Your task to perform on an android device: Add razer thresher to the cart on ebay, then select checkout. Image 0: 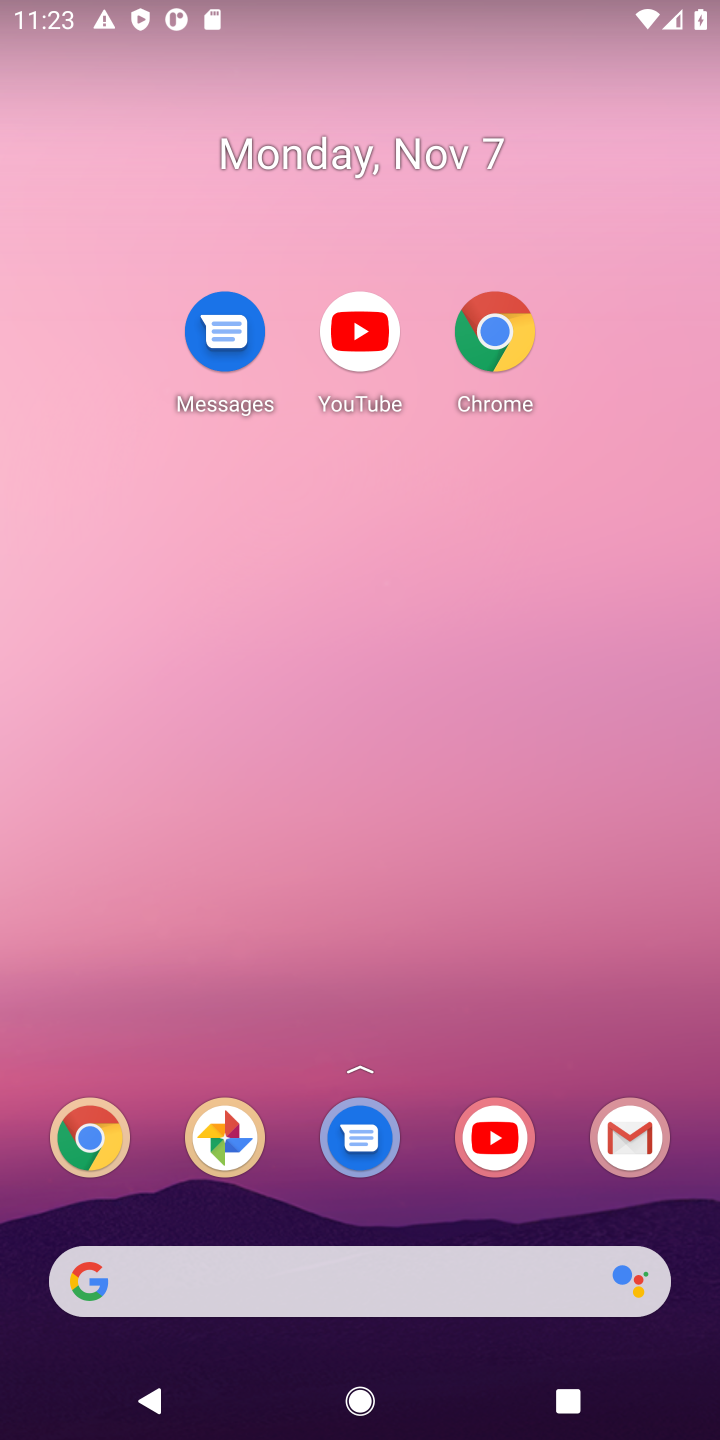
Step 0: drag from (430, 1055) to (335, 148)
Your task to perform on an android device: Add razer thresher to the cart on ebay, then select checkout. Image 1: 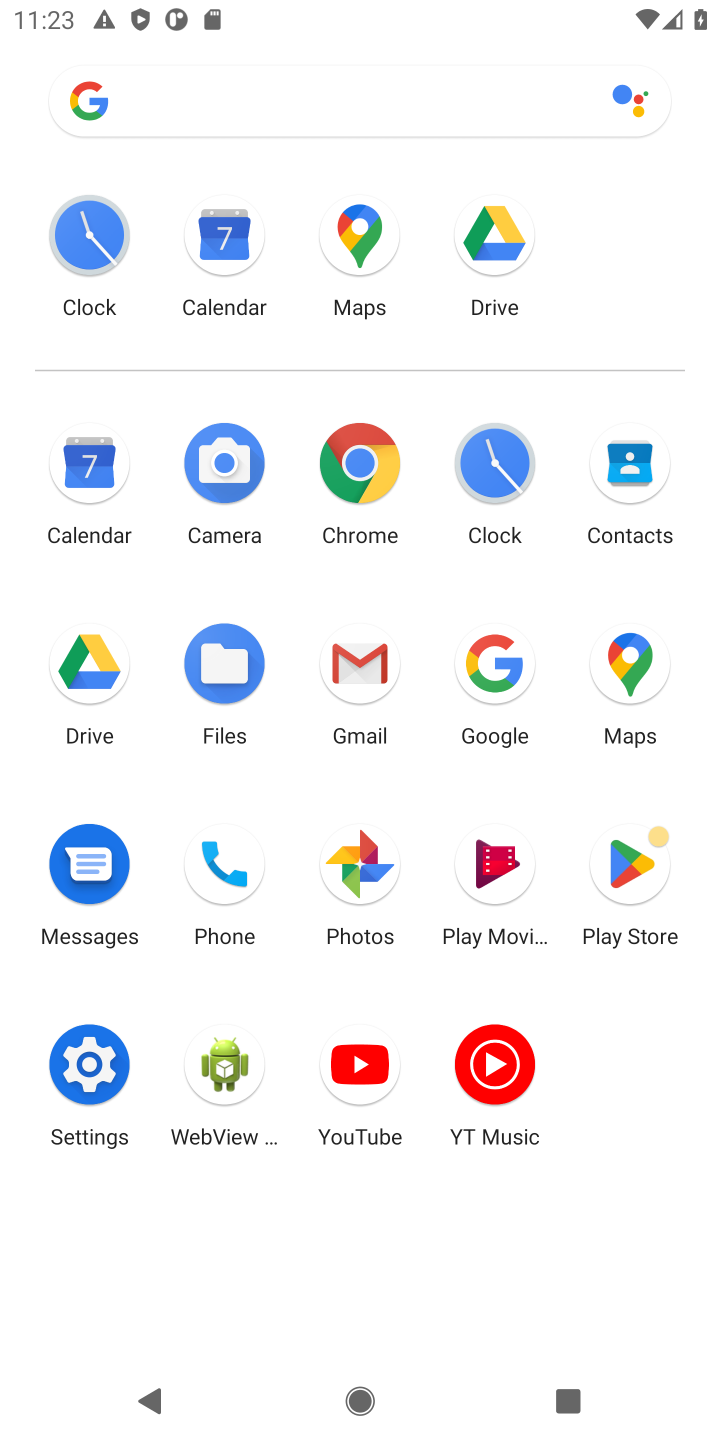
Step 1: click (362, 459)
Your task to perform on an android device: Add razer thresher to the cart on ebay, then select checkout. Image 2: 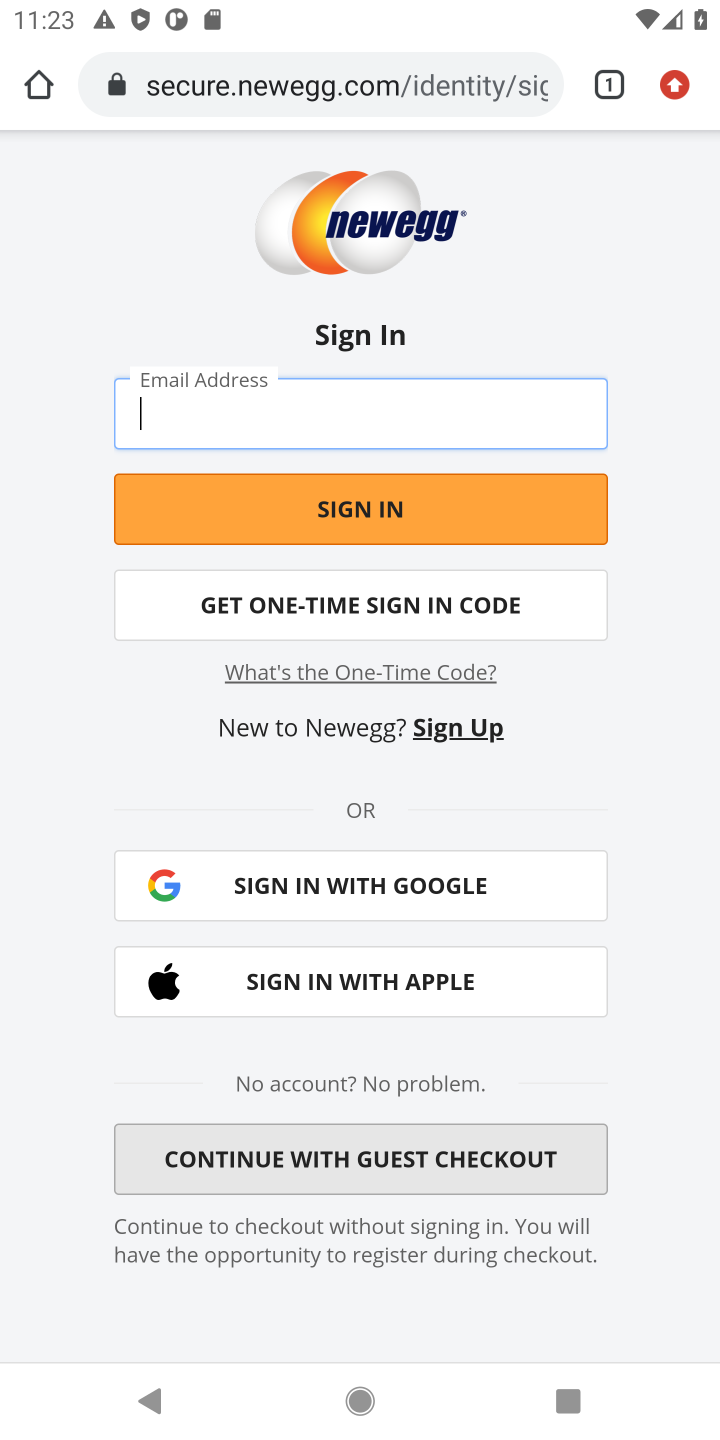
Step 2: click (415, 86)
Your task to perform on an android device: Add razer thresher to the cart on ebay, then select checkout. Image 3: 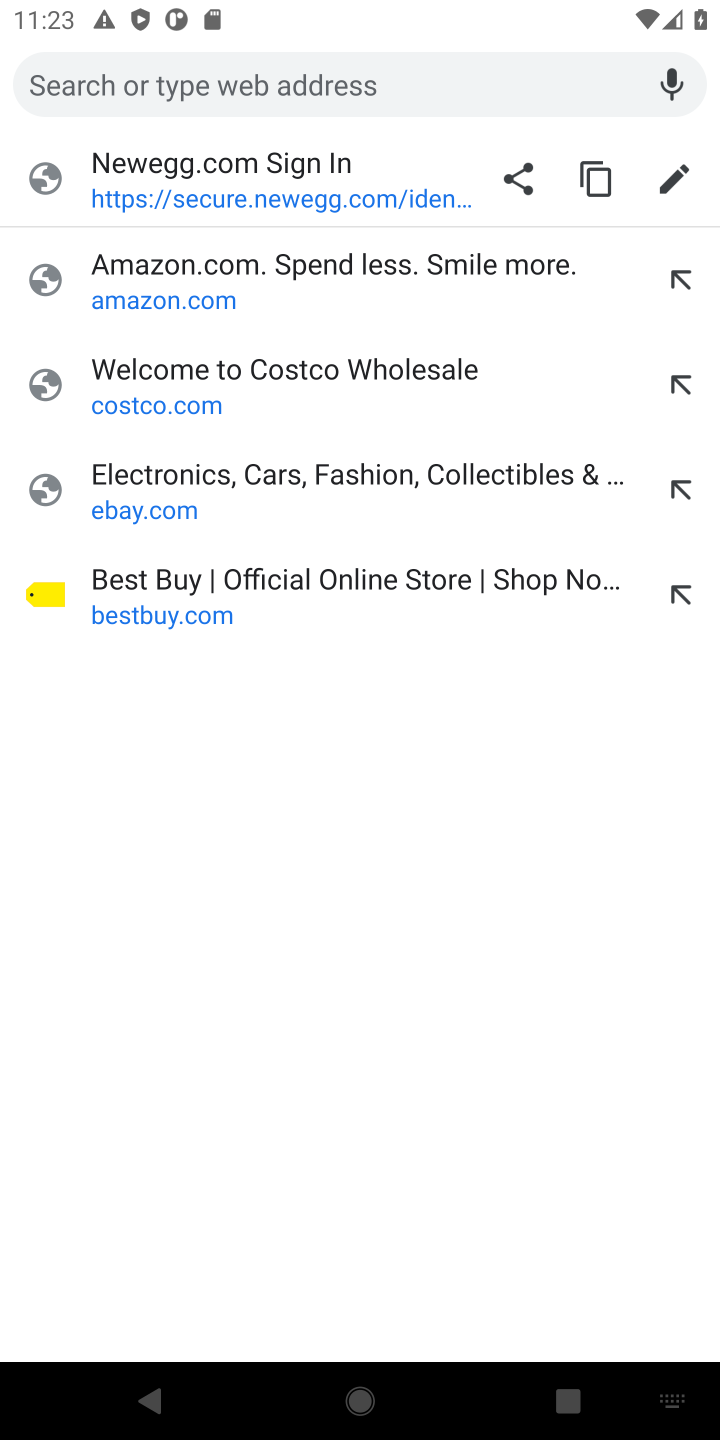
Step 3: type "ebay.com"
Your task to perform on an android device: Add razer thresher to the cart on ebay, then select checkout. Image 4: 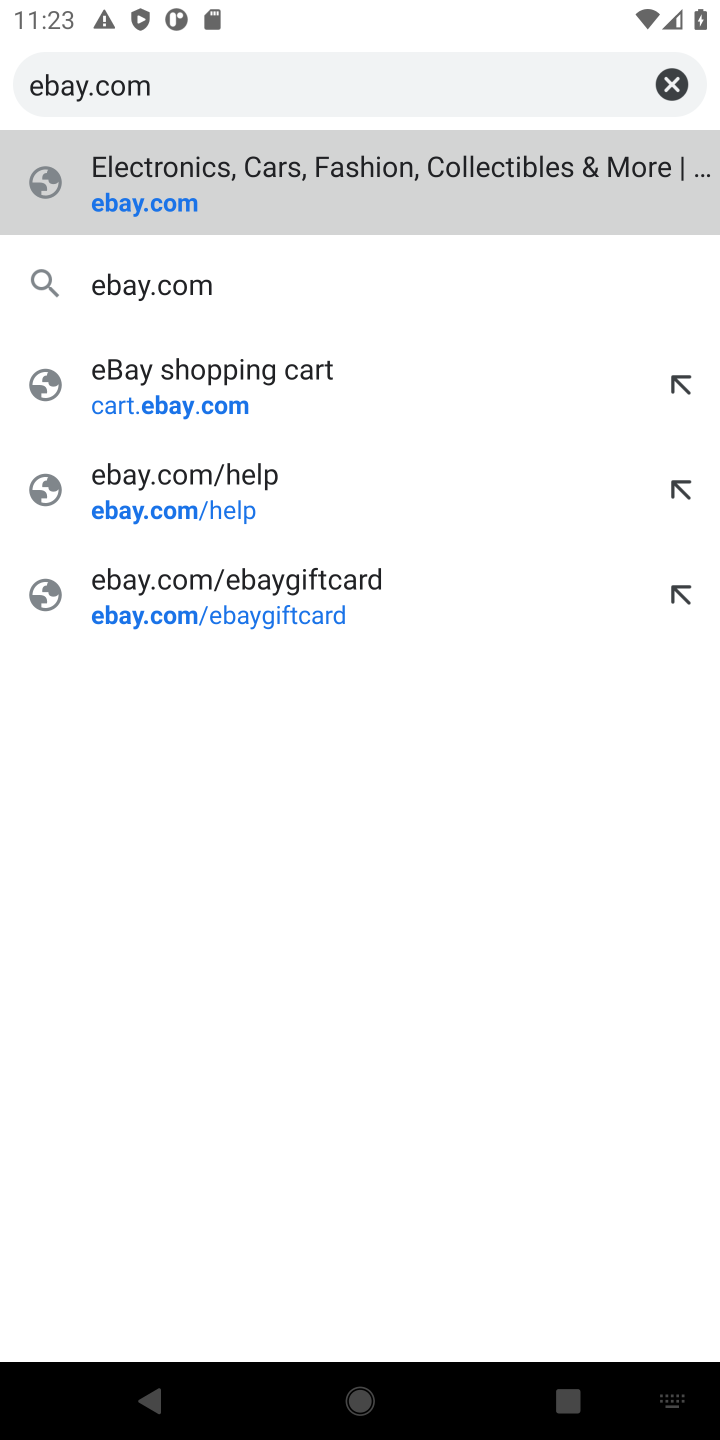
Step 4: press enter
Your task to perform on an android device: Add razer thresher to the cart on ebay, then select checkout. Image 5: 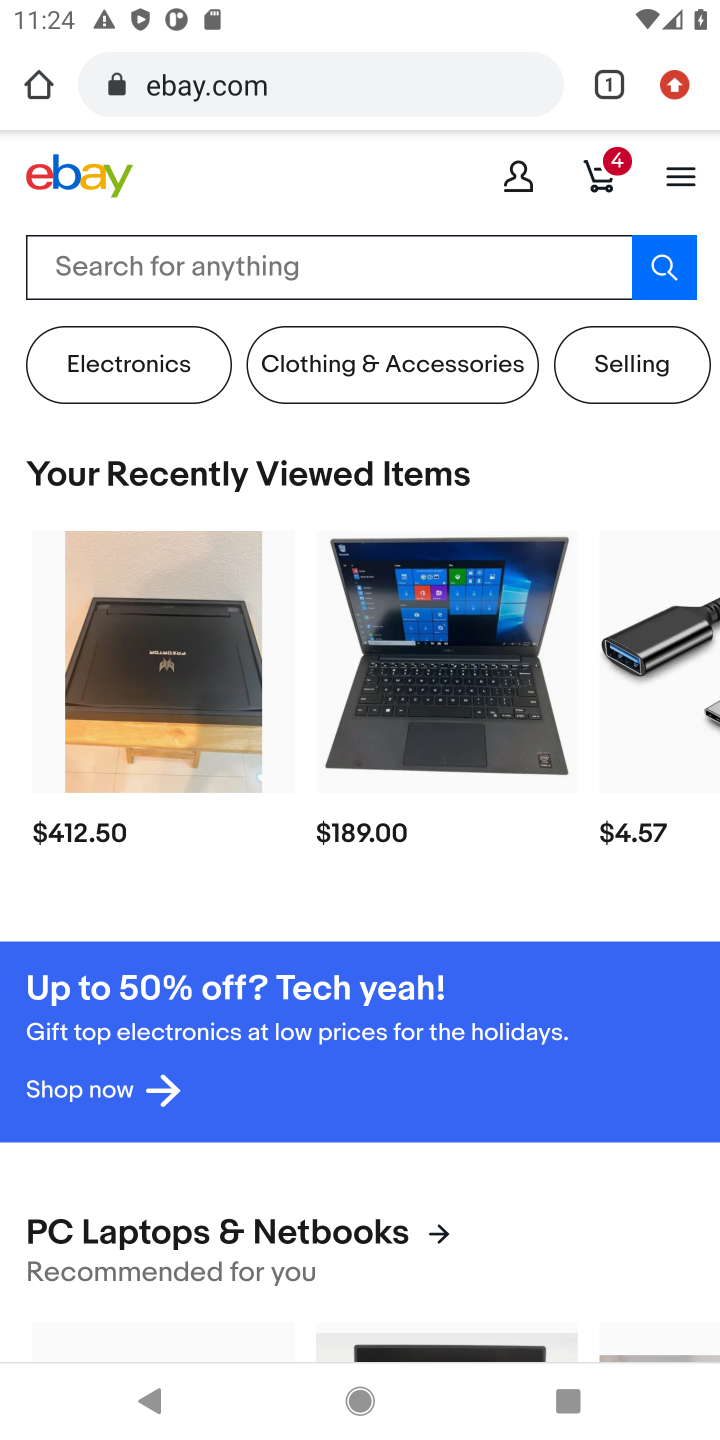
Step 5: click (508, 263)
Your task to perform on an android device: Add razer thresher to the cart on ebay, then select checkout. Image 6: 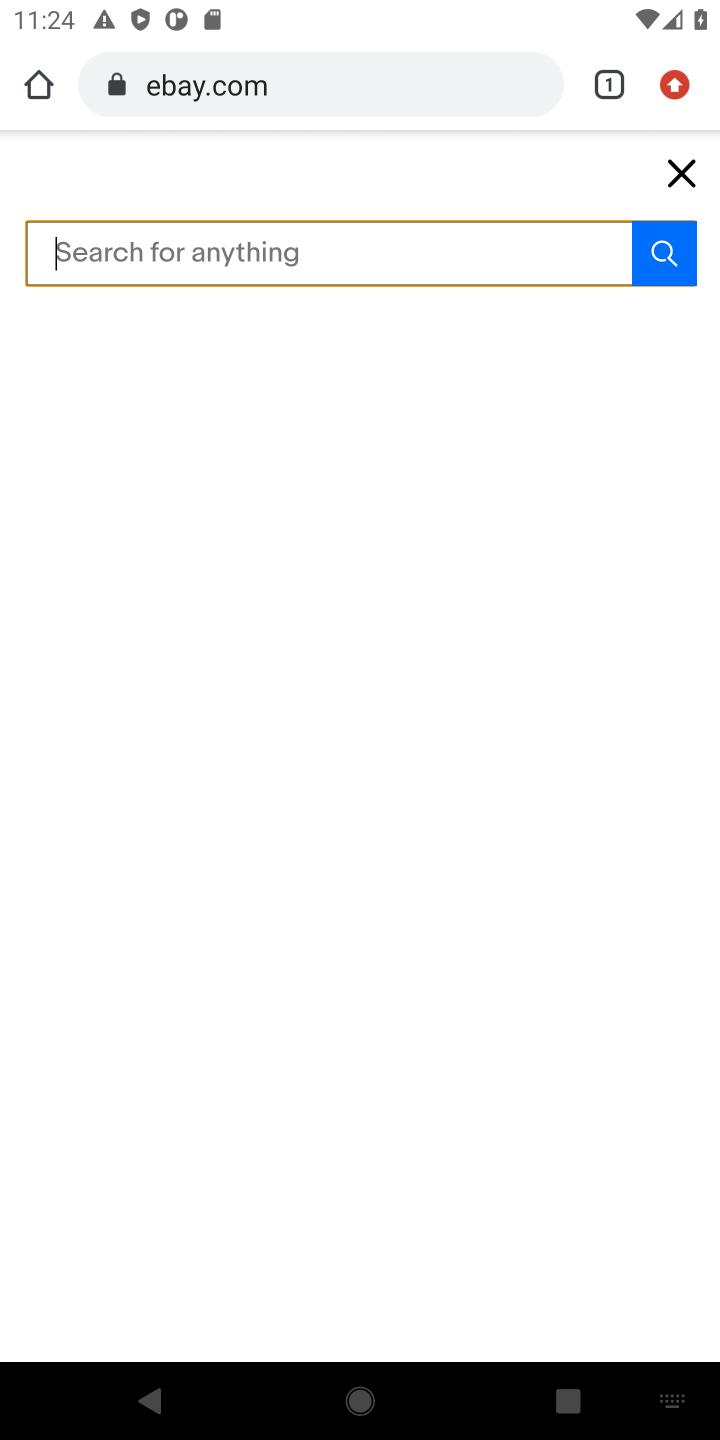
Step 6: type "razer thresher"
Your task to perform on an android device: Add razer thresher to the cart on ebay, then select checkout. Image 7: 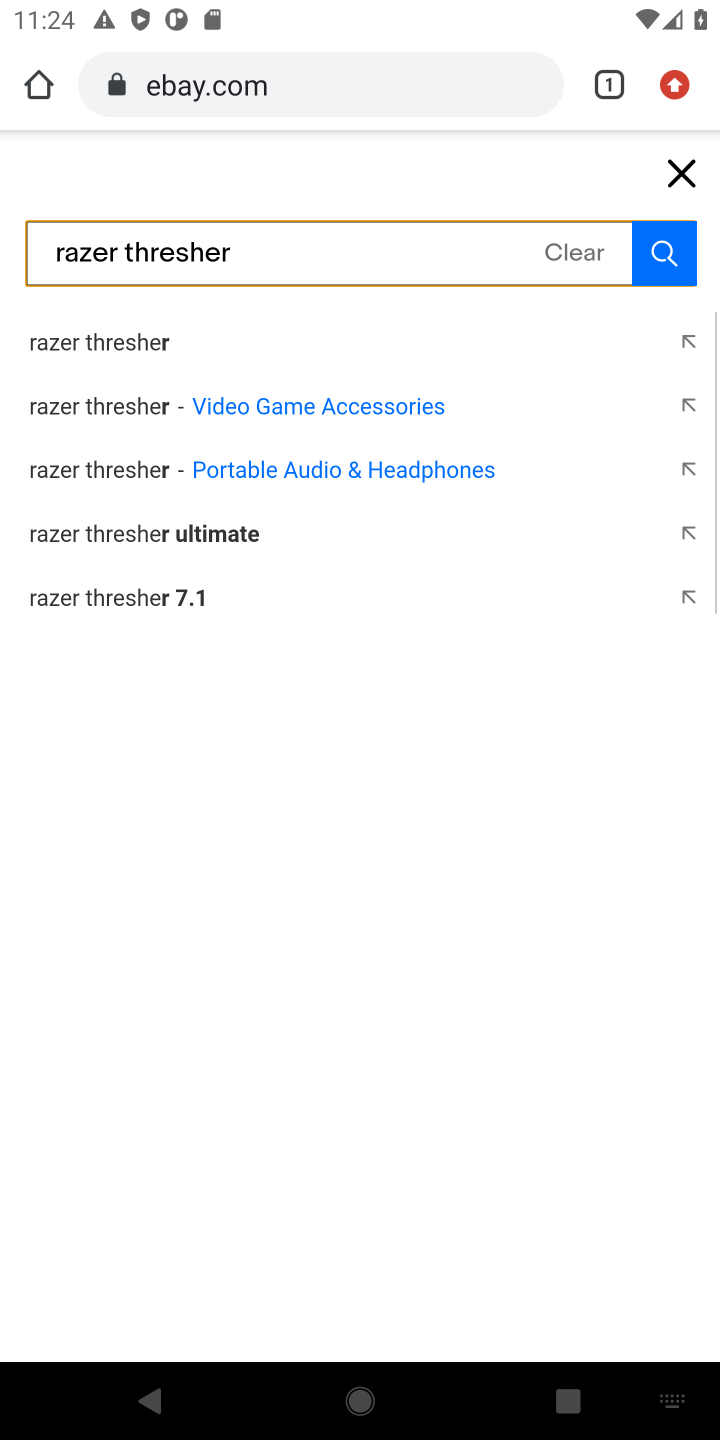
Step 7: press enter
Your task to perform on an android device: Add razer thresher to the cart on ebay, then select checkout. Image 8: 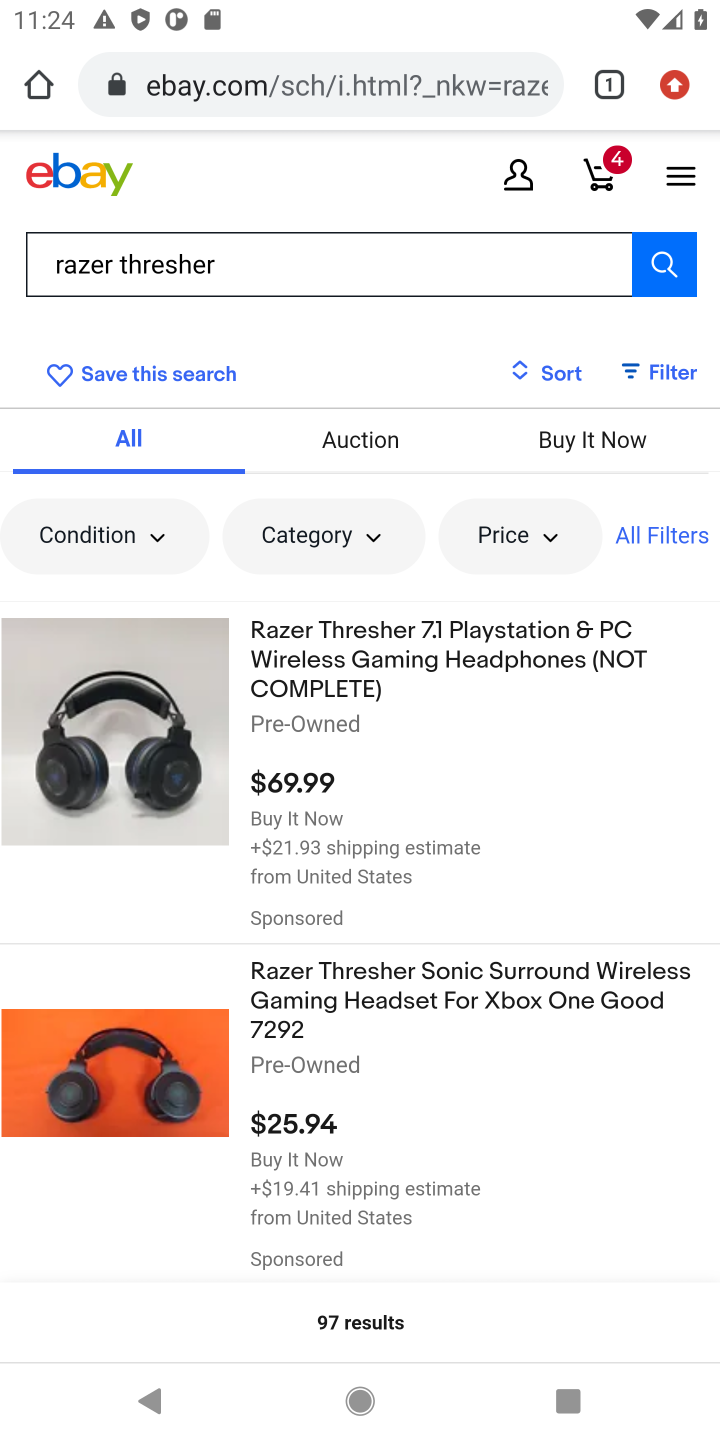
Step 8: click (498, 654)
Your task to perform on an android device: Add razer thresher to the cart on ebay, then select checkout. Image 9: 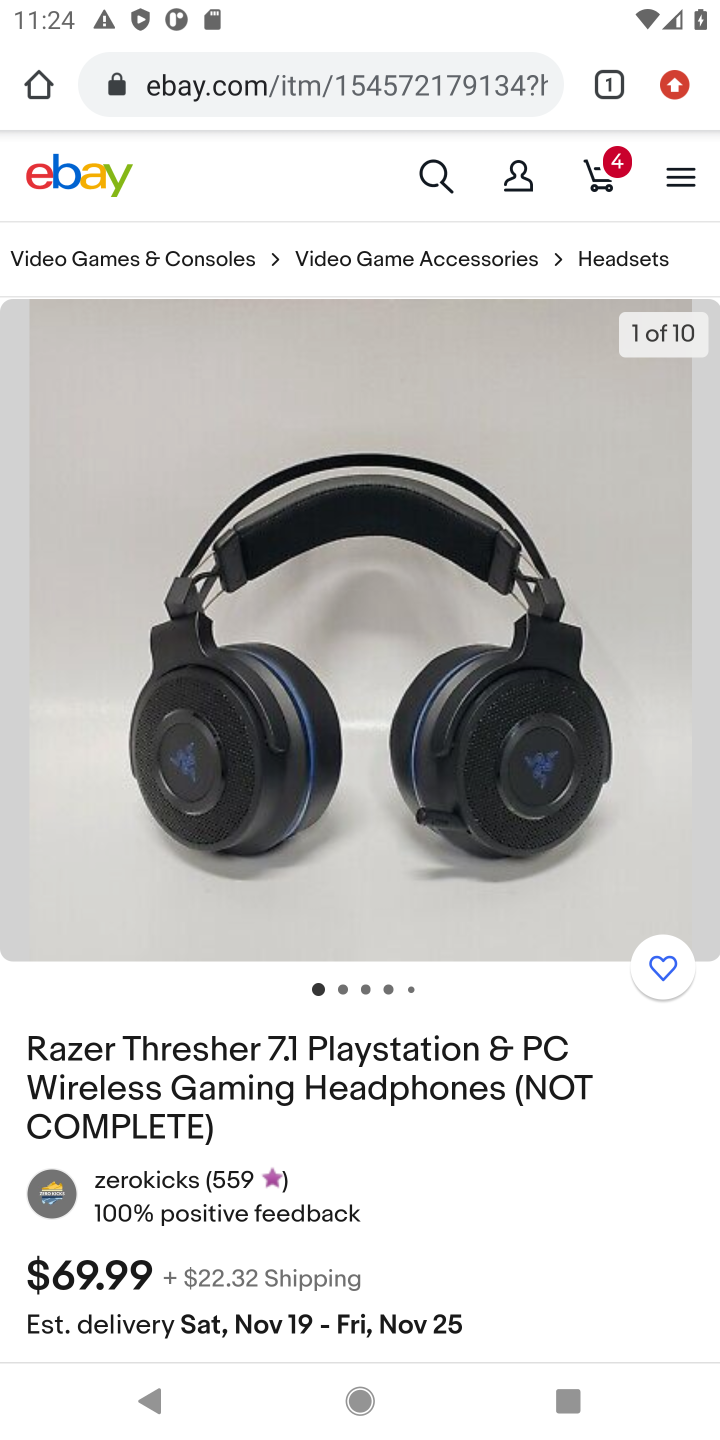
Step 9: drag from (533, 1093) to (601, 362)
Your task to perform on an android device: Add razer thresher to the cart on ebay, then select checkout. Image 10: 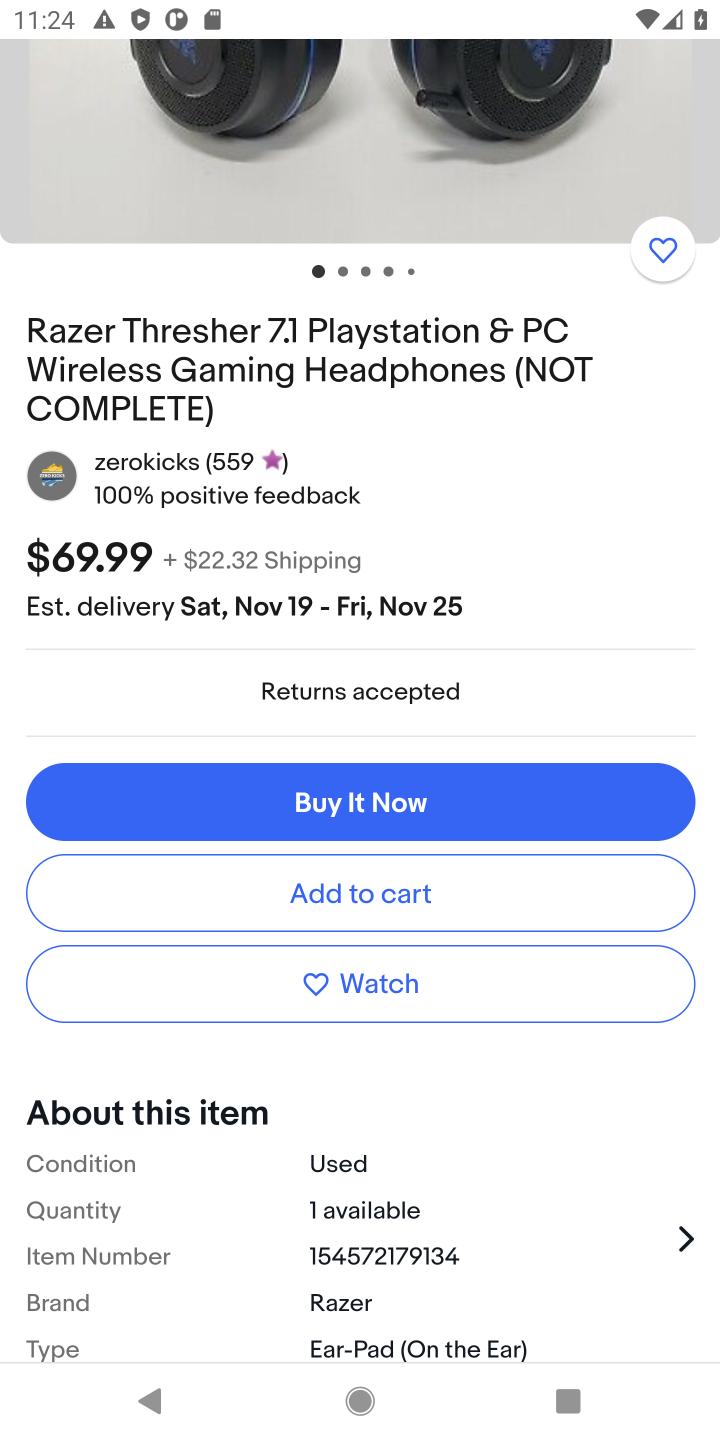
Step 10: click (457, 891)
Your task to perform on an android device: Add razer thresher to the cart on ebay, then select checkout. Image 11: 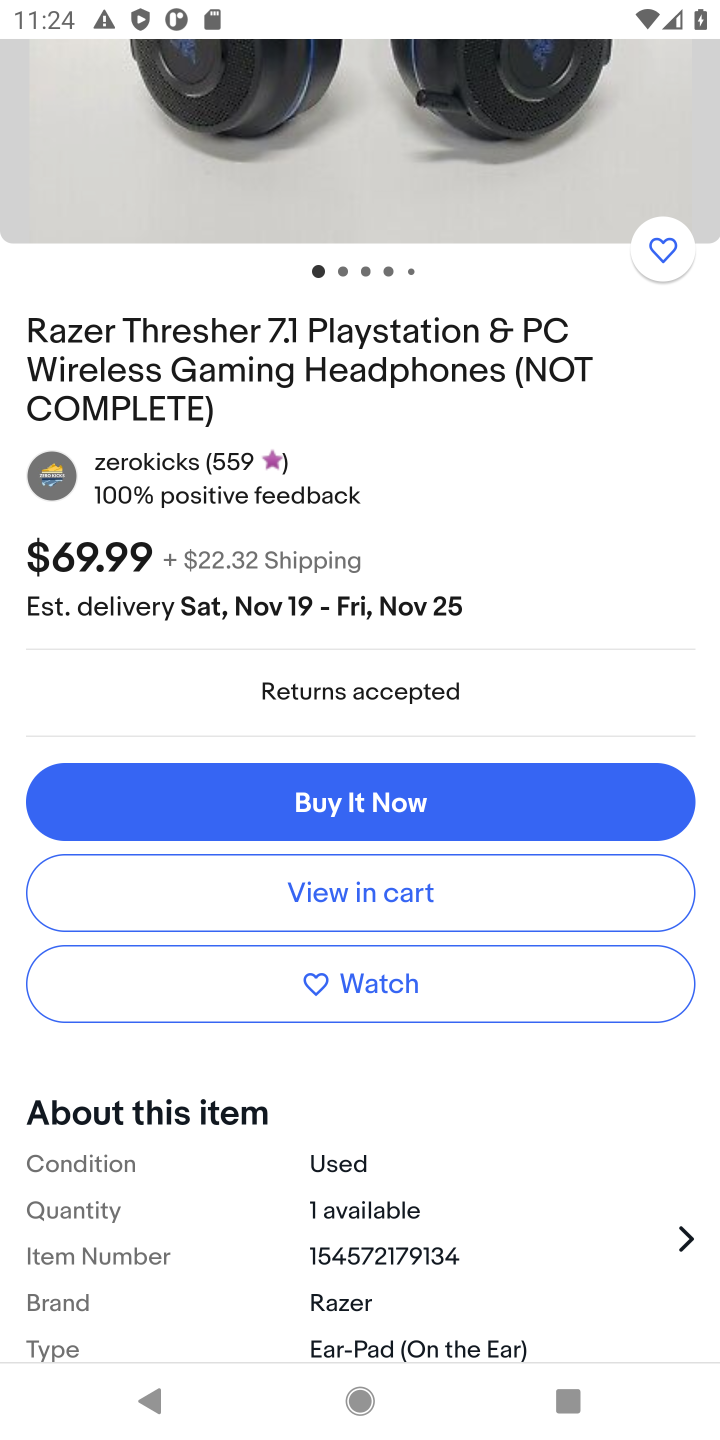
Step 11: click (408, 882)
Your task to perform on an android device: Add razer thresher to the cart on ebay, then select checkout. Image 12: 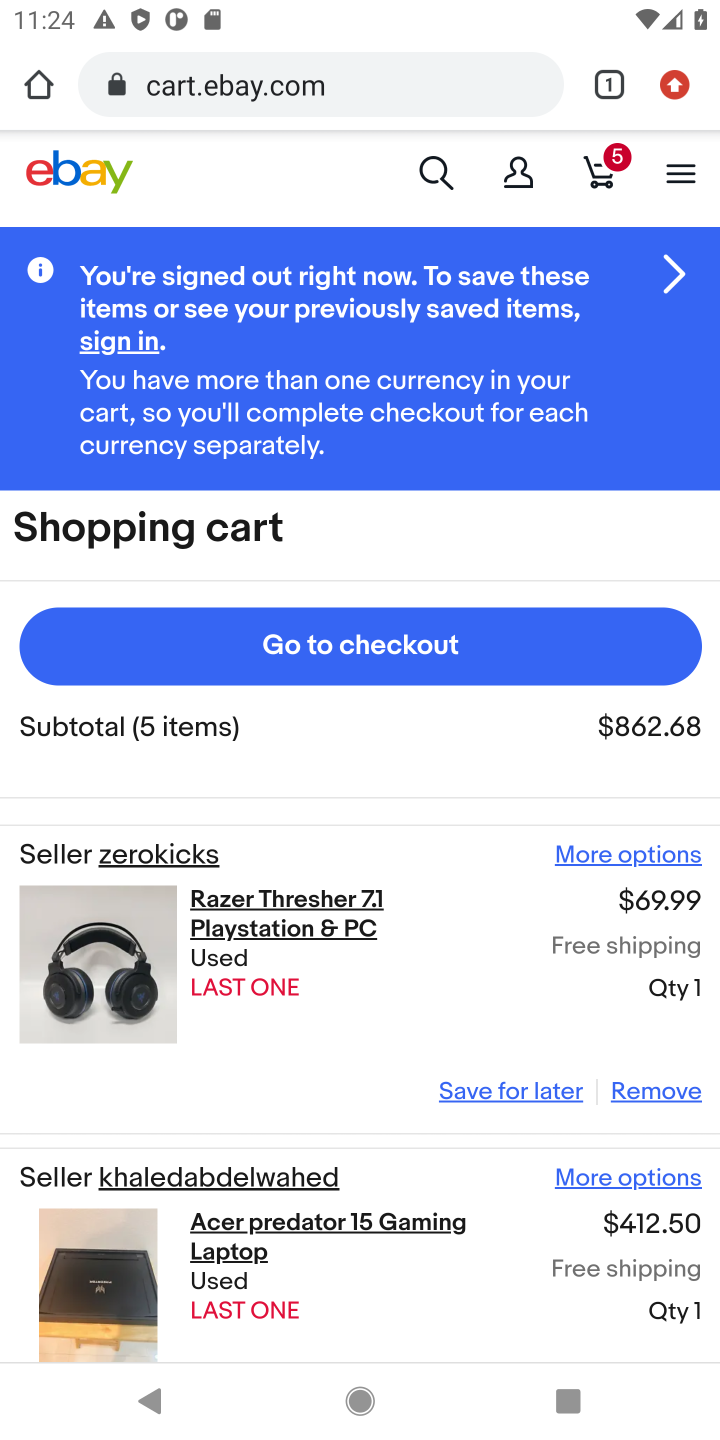
Step 12: click (472, 669)
Your task to perform on an android device: Add razer thresher to the cart on ebay, then select checkout. Image 13: 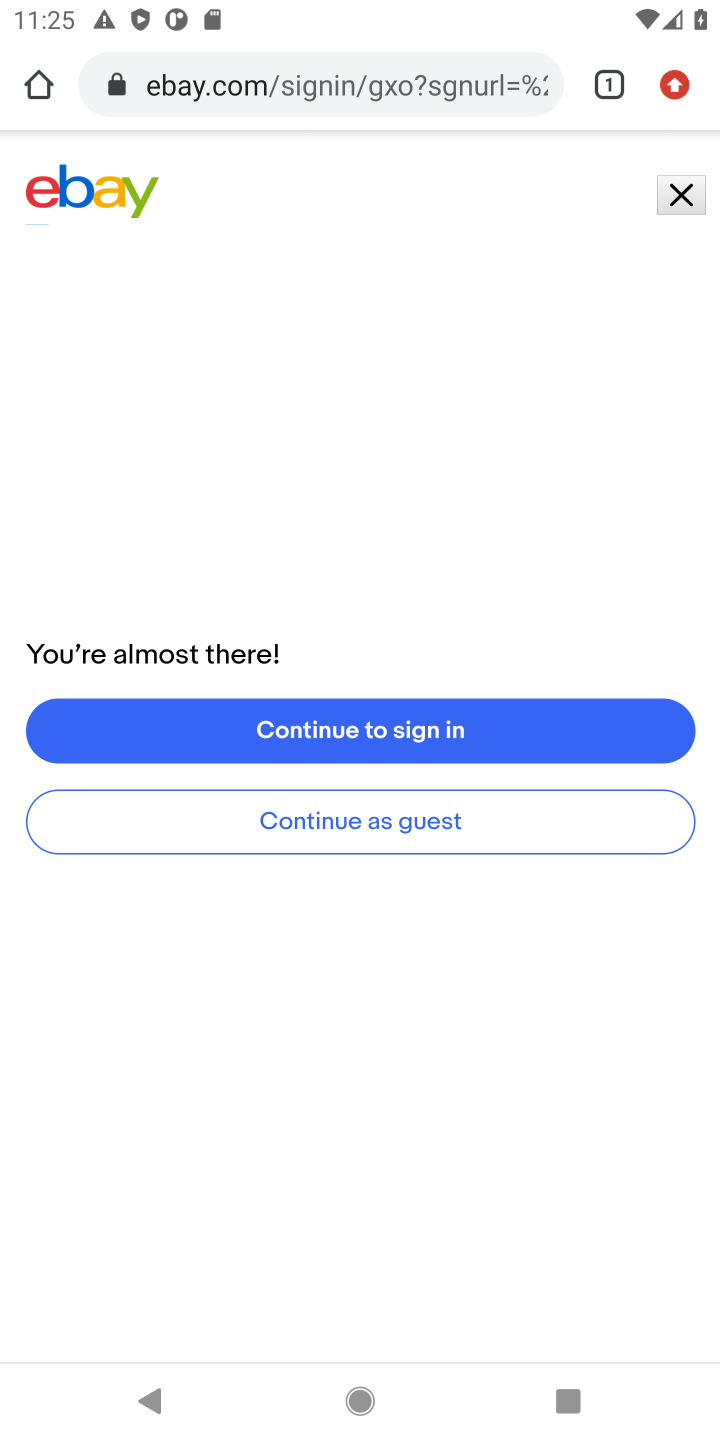
Step 13: task complete